Your task to perform on an android device: Open settings on Google Maps Image 0: 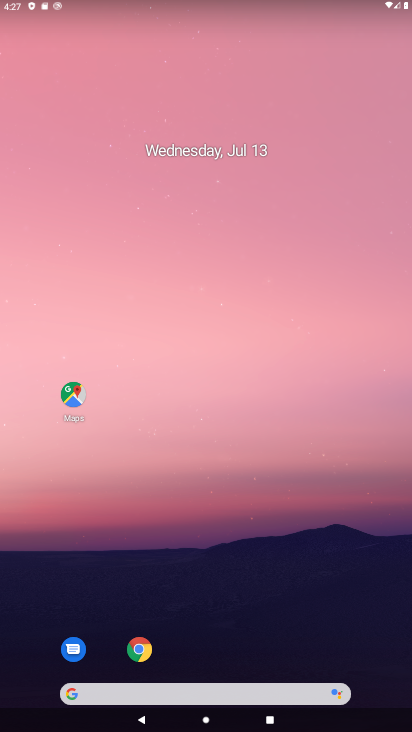
Step 0: drag from (287, 670) to (286, 93)
Your task to perform on an android device: Open settings on Google Maps Image 1: 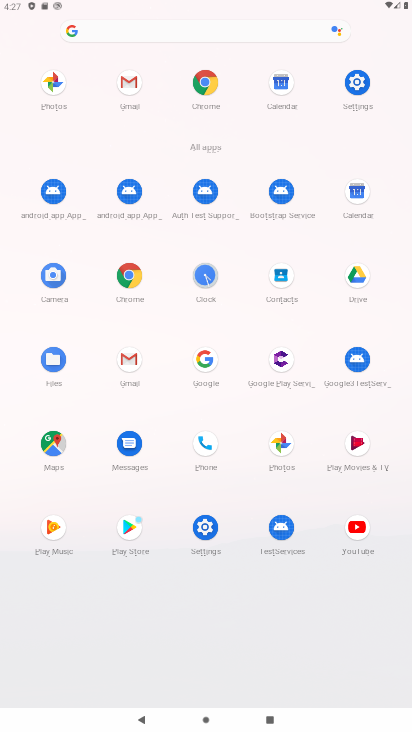
Step 1: click (52, 442)
Your task to perform on an android device: Open settings on Google Maps Image 2: 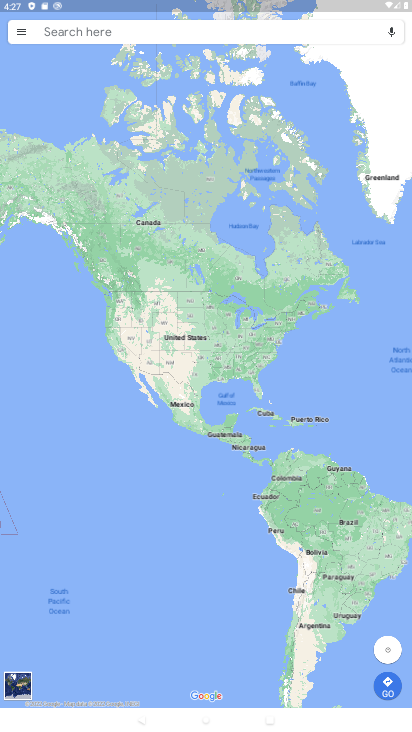
Step 2: task complete